Your task to perform on an android device: Open wifi settings Image 0: 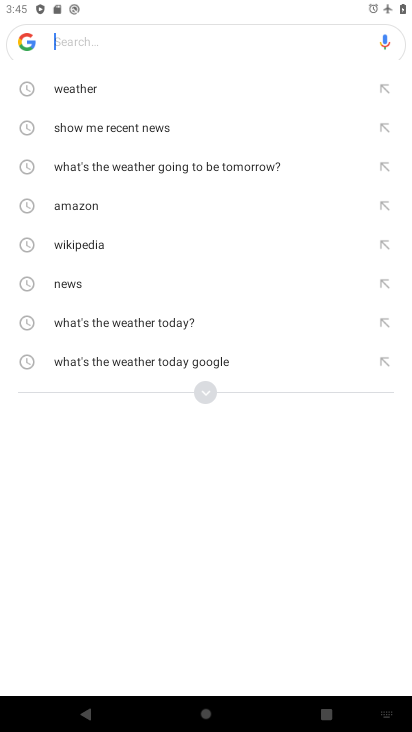
Step 0: press home button
Your task to perform on an android device: Open wifi settings Image 1: 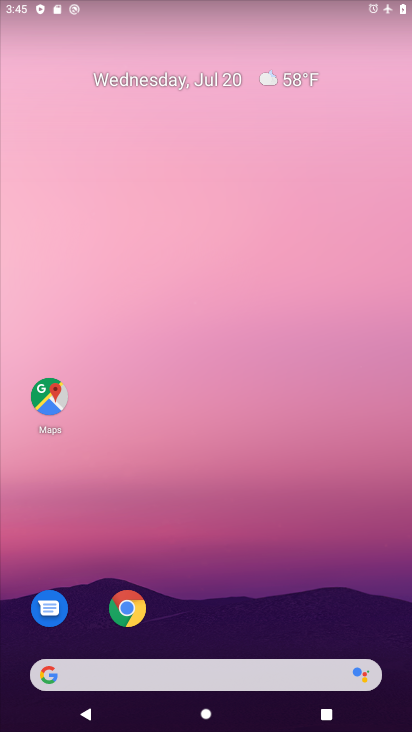
Step 1: drag from (210, 630) to (306, 294)
Your task to perform on an android device: Open wifi settings Image 2: 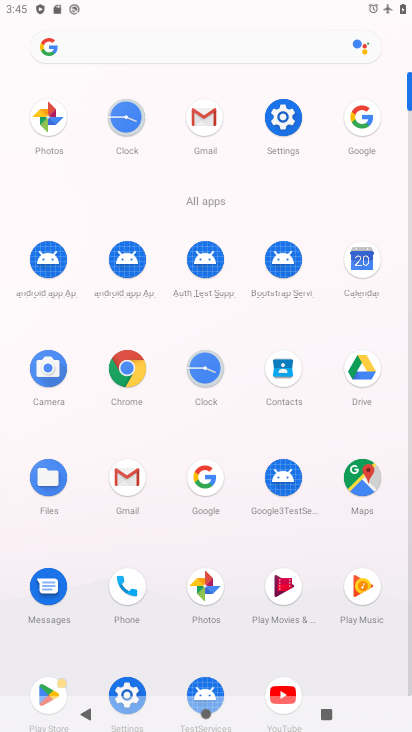
Step 2: click (272, 122)
Your task to perform on an android device: Open wifi settings Image 3: 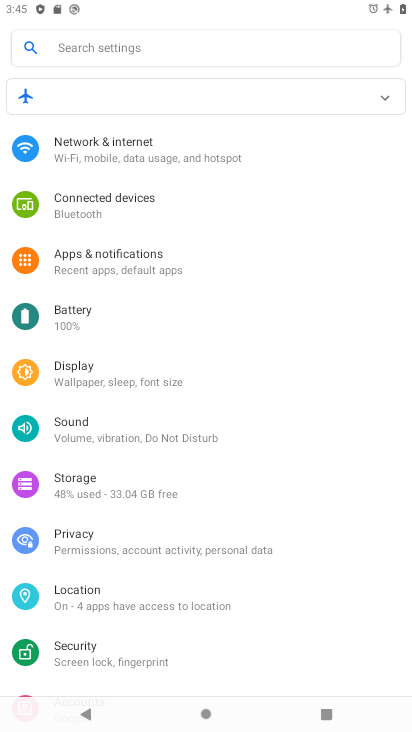
Step 3: click (125, 145)
Your task to perform on an android device: Open wifi settings Image 4: 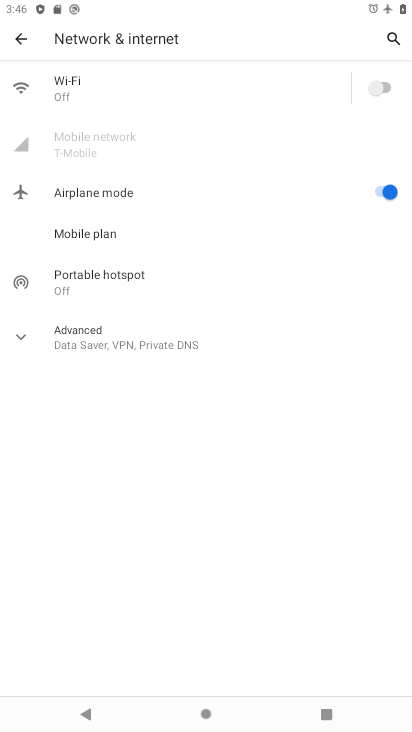
Step 4: click (87, 84)
Your task to perform on an android device: Open wifi settings Image 5: 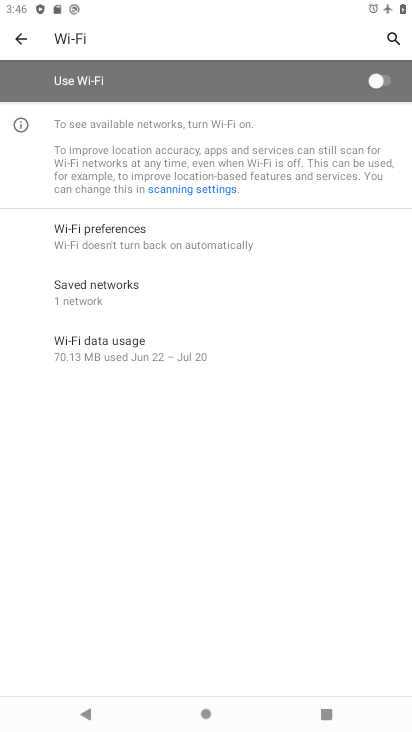
Step 5: task complete